Your task to perform on an android device: check battery use Image 0: 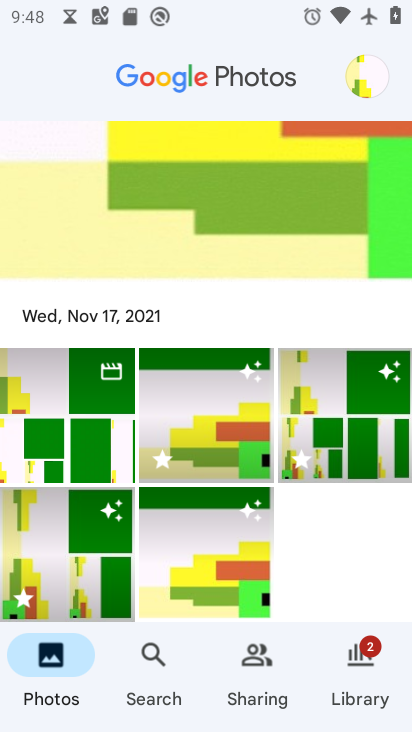
Step 0: press home button
Your task to perform on an android device: check battery use Image 1: 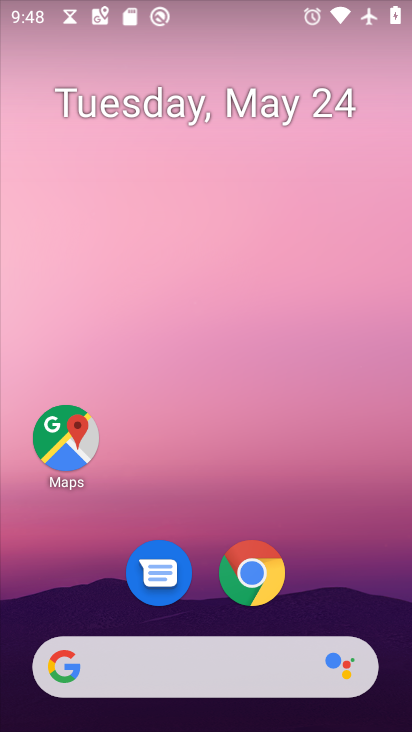
Step 1: drag from (369, 561) to (362, 38)
Your task to perform on an android device: check battery use Image 2: 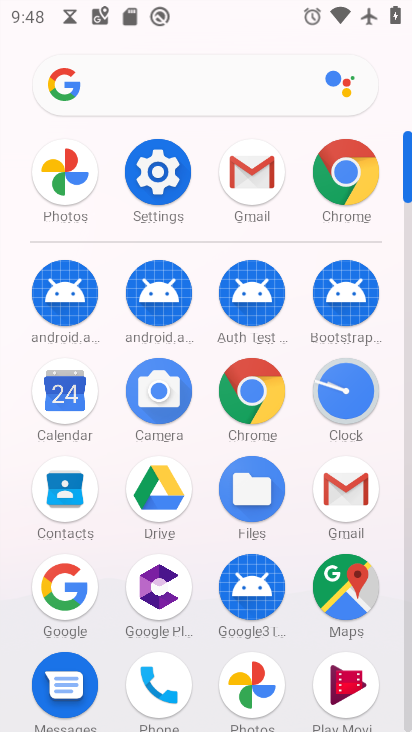
Step 2: click (138, 178)
Your task to perform on an android device: check battery use Image 3: 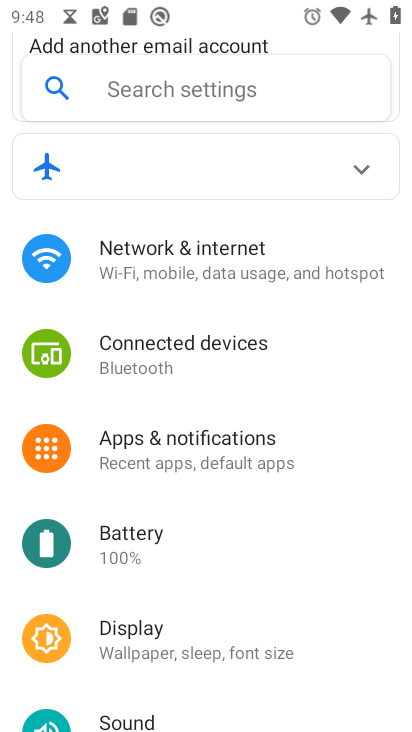
Step 3: click (139, 543)
Your task to perform on an android device: check battery use Image 4: 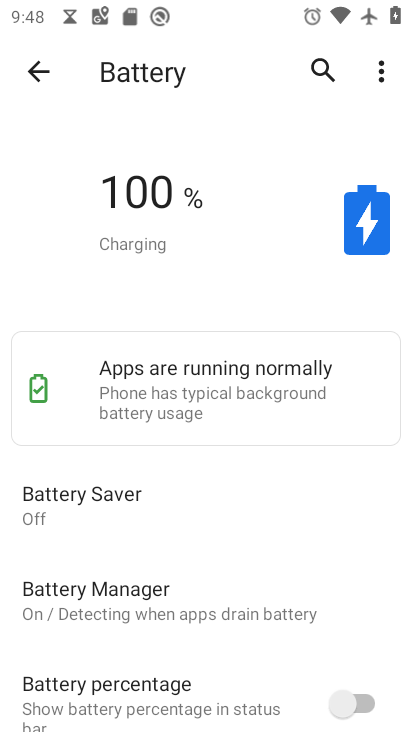
Step 4: task complete